Your task to perform on an android device: show emergency info Image 0: 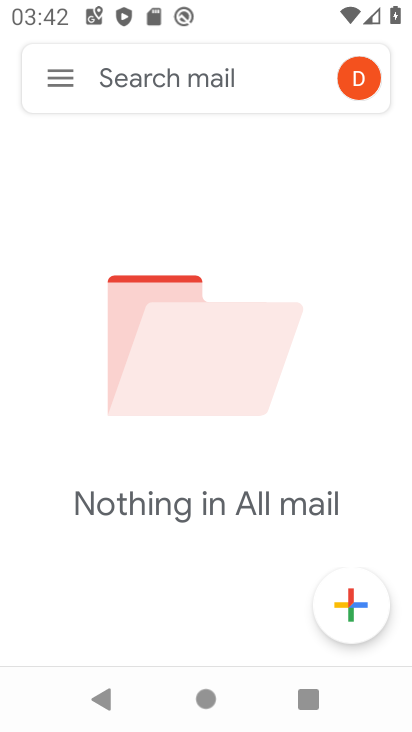
Step 0: press home button
Your task to perform on an android device: show emergency info Image 1: 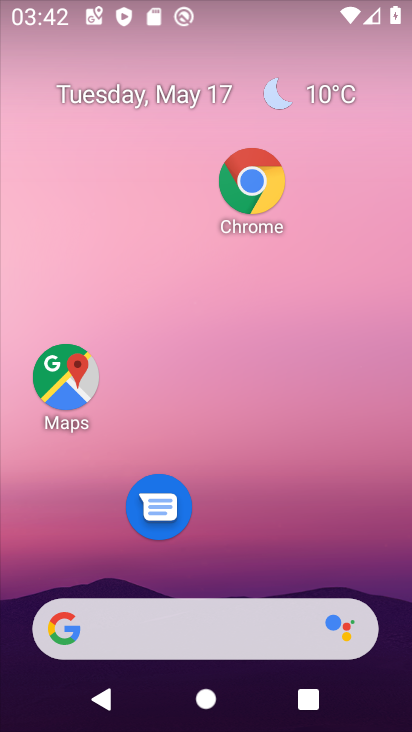
Step 1: drag from (236, 575) to (210, 7)
Your task to perform on an android device: show emergency info Image 2: 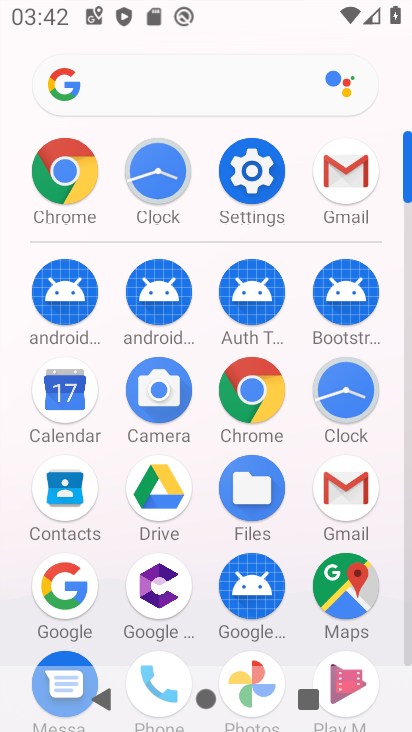
Step 2: click (272, 149)
Your task to perform on an android device: show emergency info Image 3: 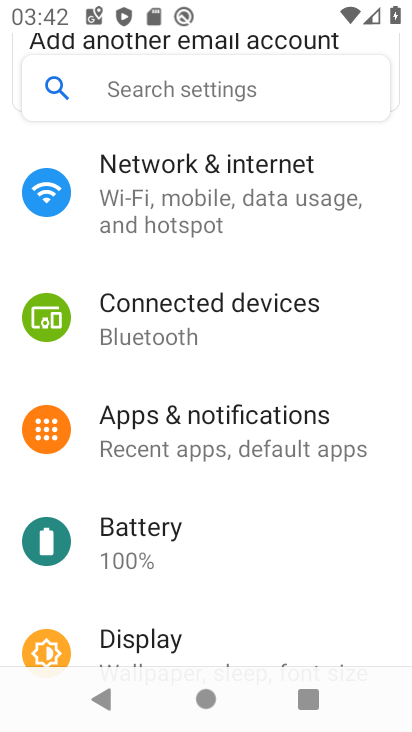
Step 3: drag from (102, 589) to (161, 126)
Your task to perform on an android device: show emergency info Image 4: 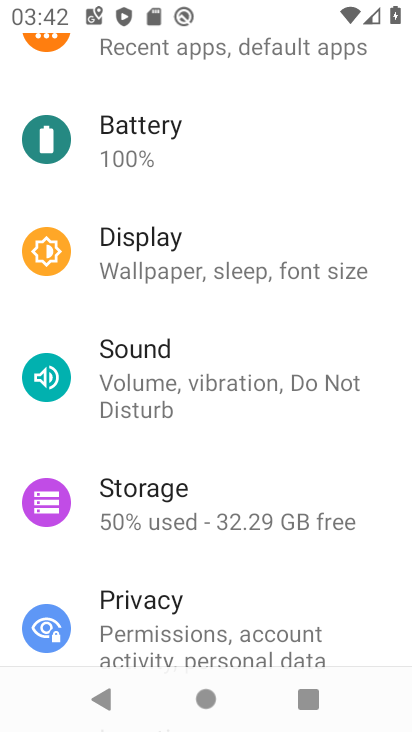
Step 4: drag from (275, 562) to (279, 210)
Your task to perform on an android device: show emergency info Image 5: 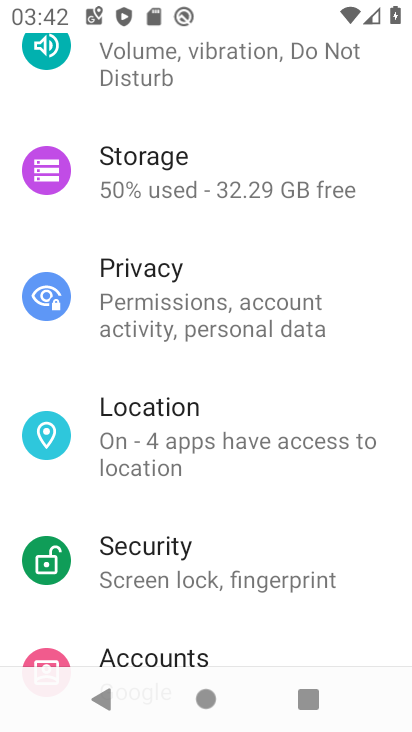
Step 5: drag from (115, 638) to (140, 170)
Your task to perform on an android device: show emergency info Image 6: 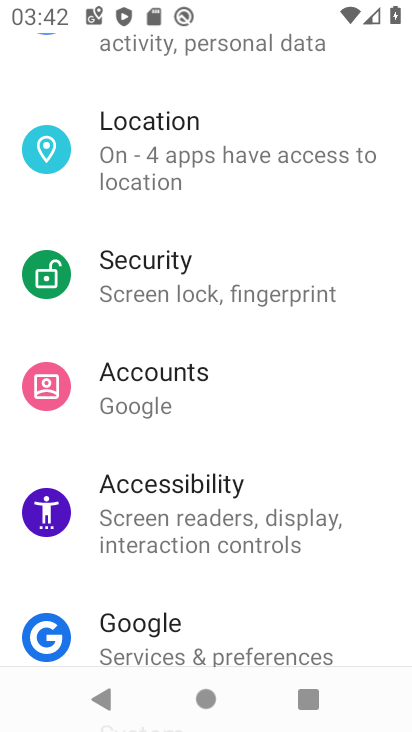
Step 6: drag from (165, 577) to (290, 45)
Your task to perform on an android device: show emergency info Image 7: 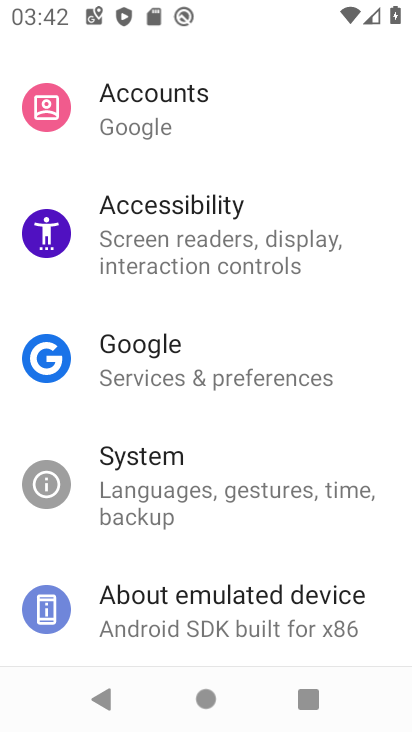
Step 7: drag from (160, 619) to (237, 6)
Your task to perform on an android device: show emergency info Image 8: 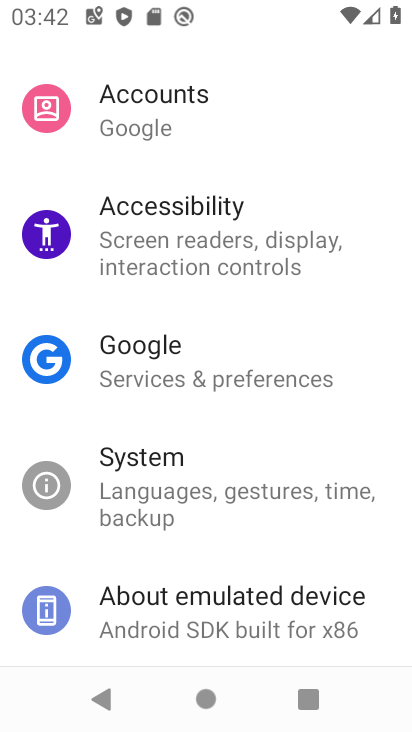
Step 8: click (110, 623)
Your task to perform on an android device: show emergency info Image 9: 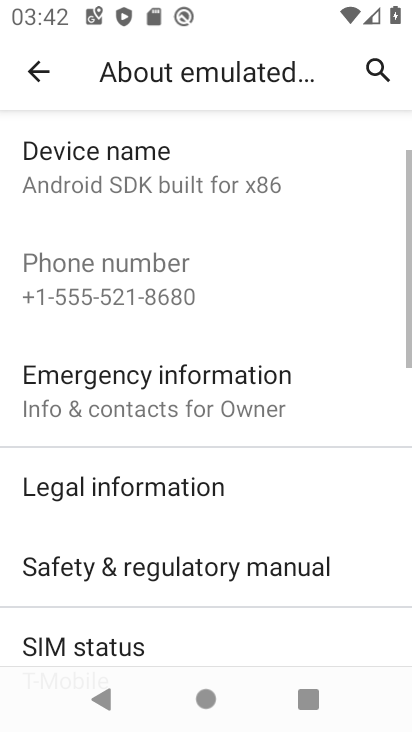
Step 9: click (171, 419)
Your task to perform on an android device: show emergency info Image 10: 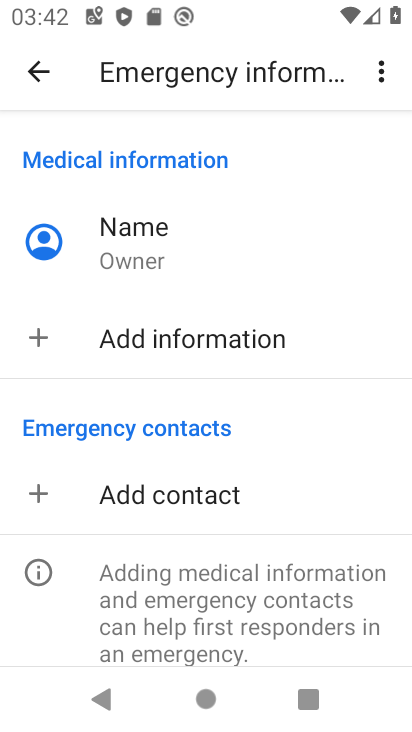
Step 10: task complete